Your task to perform on an android device: Open notification settings Image 0: 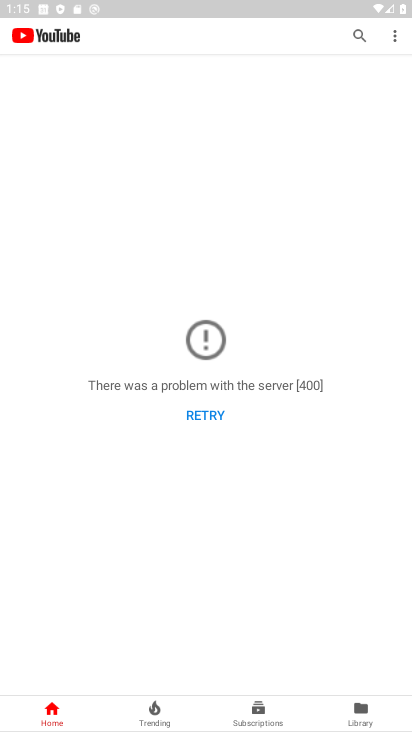
Step 0: press home button
Your task to perform on an android device: Open notification settings Image 1: 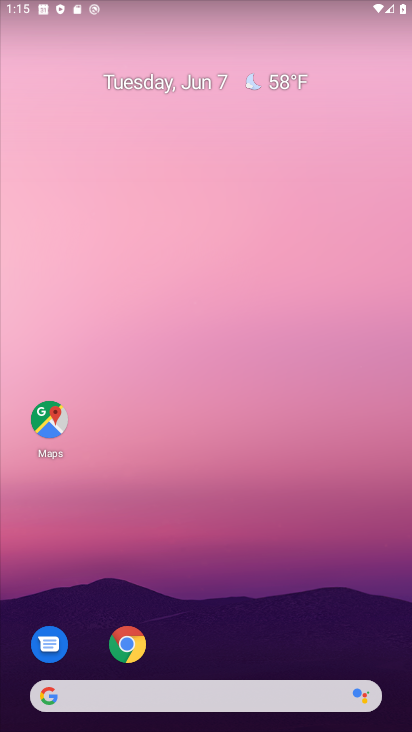
Step 1: drag from (137, 725) to (196, 1)
Your task to perform on an android device: Open notification settings Image 2: 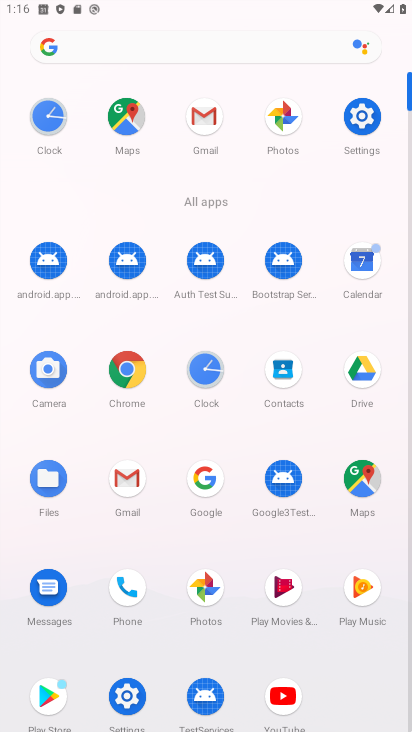
Step 2: click (350, 131)
Your task to perform on an android device: Open notification settings Image 3: 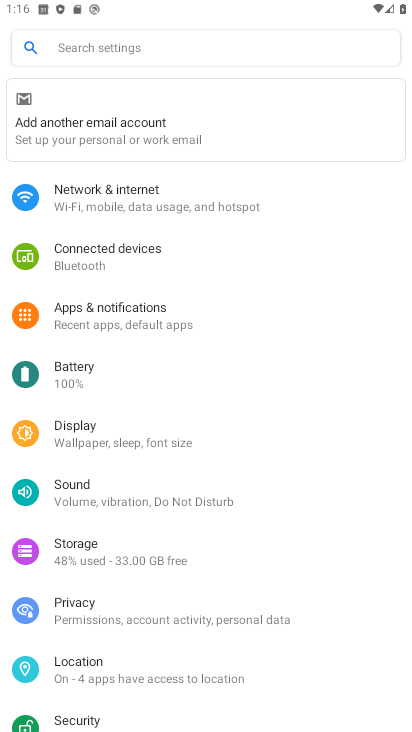
Step 3: click (157, 326)
Your task to perform on an android device: Open notification settings Image 4: 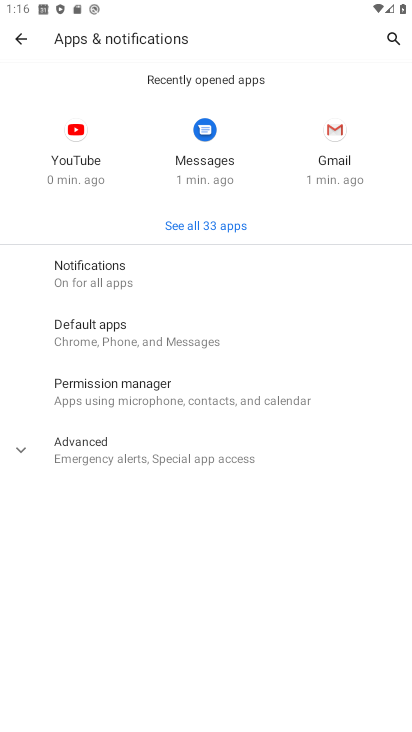
Step 4: click (99, 293)
Your task to perform on an android device: Open notification settings Image 5: 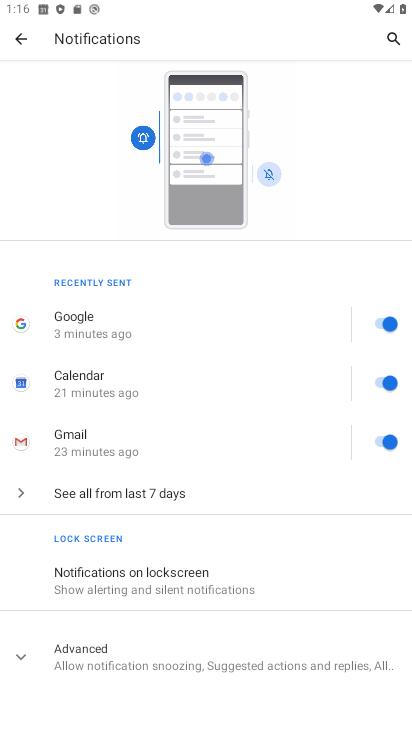
Step 5: task complete